Your task to perform on an android device: turn vacation reply on in the gmail app Image 0: 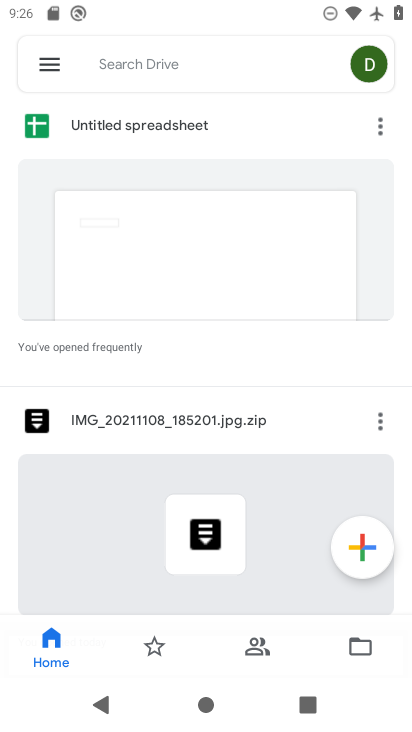
Step 0: press home button
Your task to perform on an android device: turn vacation reply on in the gmail app Image 1: 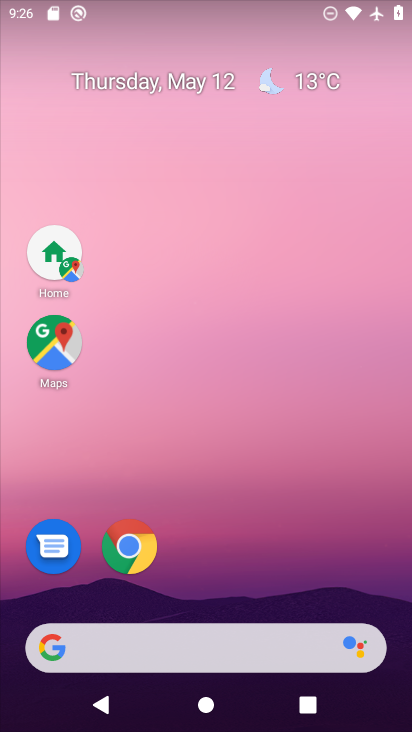
Step 1: drag from (138, 655) to (305, 116)
Your task to perform on an android device: turn vacation reply on in the gmail app Image 2: 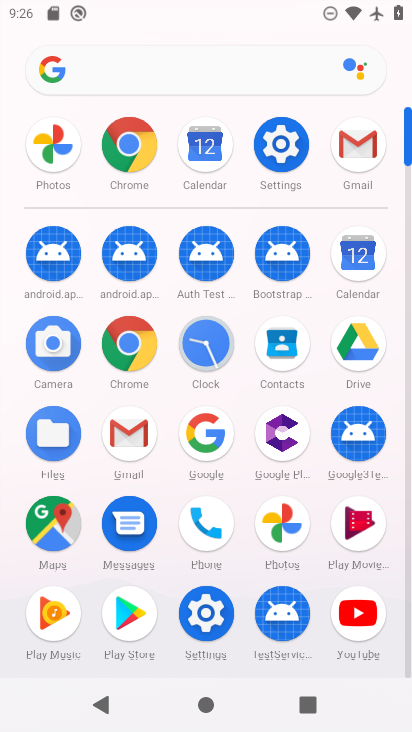
Step 2: click (343, 156)
Your task to perform on an android device: turn vacation reply on in the gmail app Image 3: 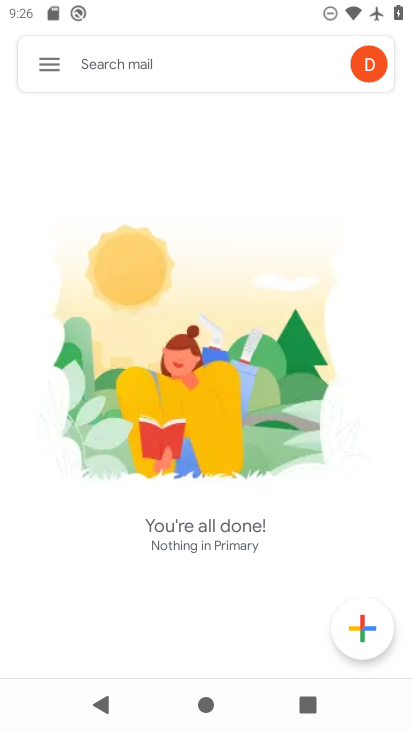
Step 3: click (50, 63)
Your task to perform on an android device: turn vacation reply on in the gmail app Image 4: 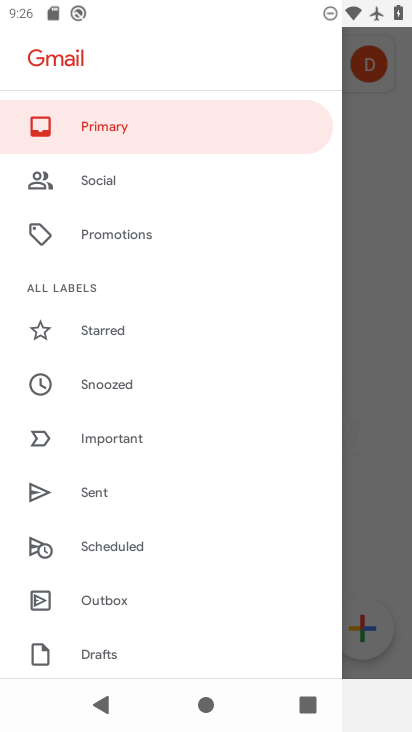
Step 4: drag from (187, 604) to (296, 103)
Your task to perform on an android device: turn vacation reply on in the gmail app Image 5: 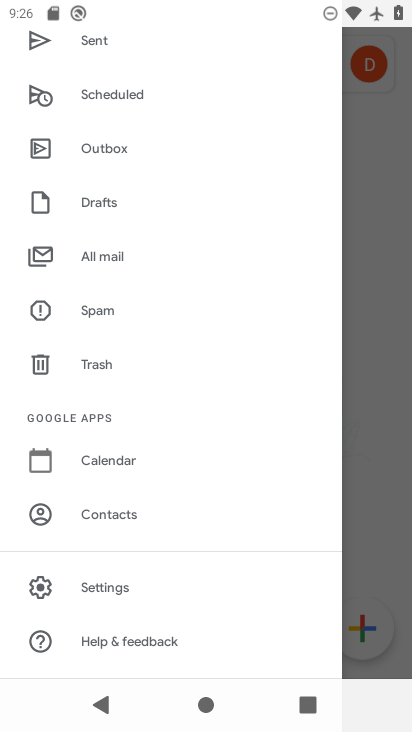
Step 5: click (94, 588)
Your task to perform on an android device: turn vacation reply on in the gmail app Image 6: 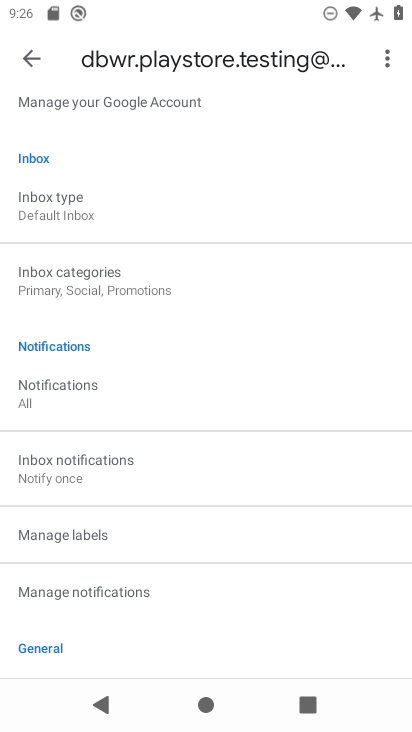
Step 6: drag from (166, 617) to (265, 158)
Your task to perform on an android device: turn vacation reply on in the gmail app Image 7: 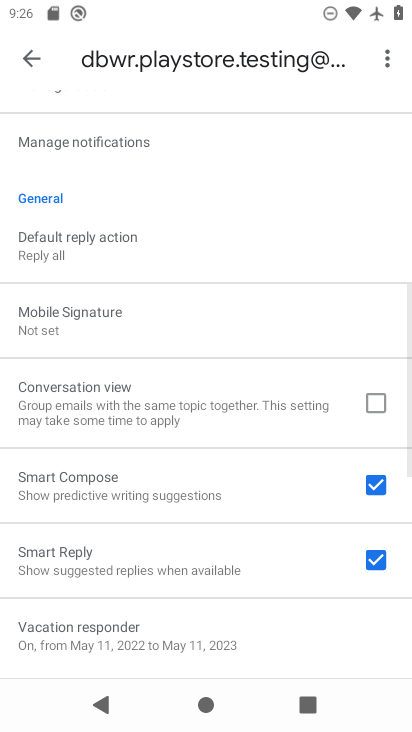
Step 7: drag from (207, 592) to (289, 348)
Your task to perform on an android device: turn vacation reply on in the gmail app Image 8: 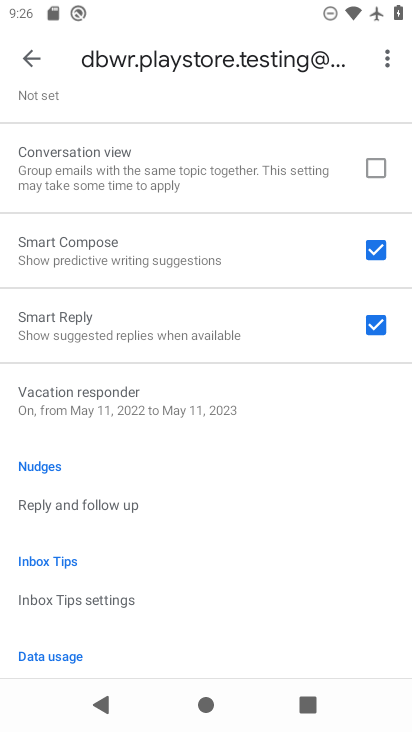
Step 8: click (169, 399)
Your task to perform on an android device: turn vacation reply on in the gmail app Image 9: 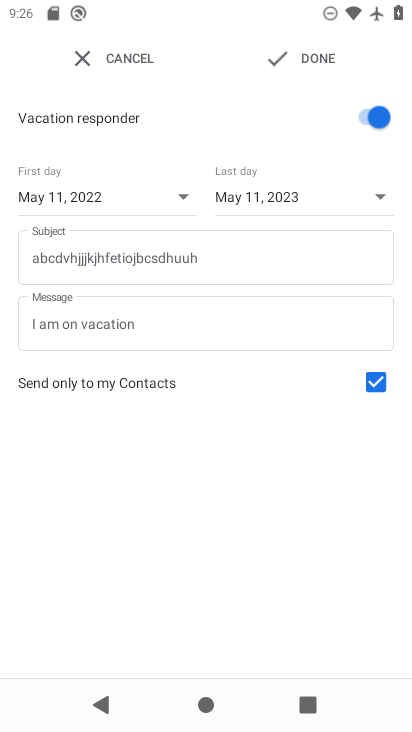
Step 9: task complete